Your task to perform on an android device: turn on the 12-hour format for clock Image 0: 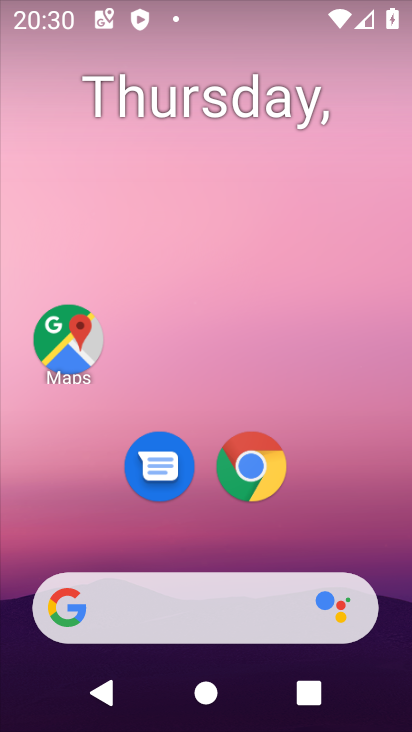
Step 0: drag from (368, 528) to (309, 85)
Your task to perform on an android device: turn on the 12-hour format for clock Image 1: 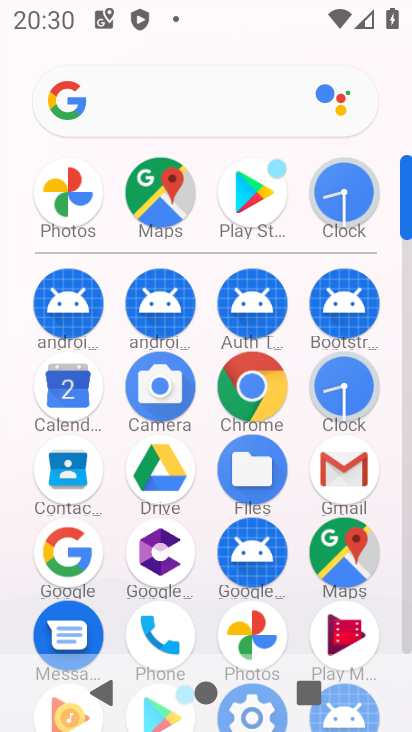
Step 1: click (335, 180)
Your task to perform on an android device: turn on the 12-hour format for clock Image 2: 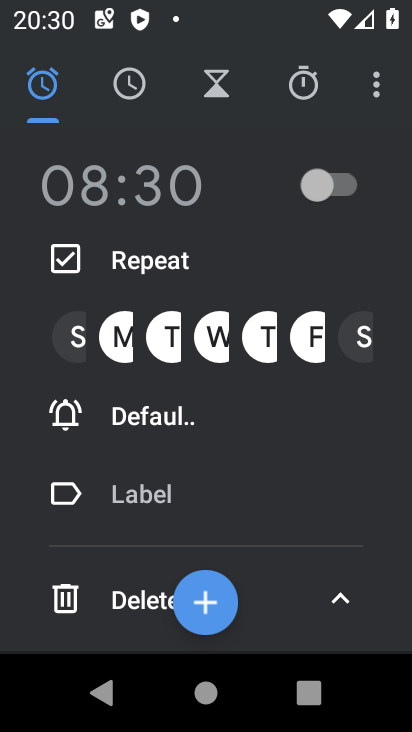
Step 2: click (382, 90)
Your task to perform on an android device: turn on the 12-hour format for clock Image 3: 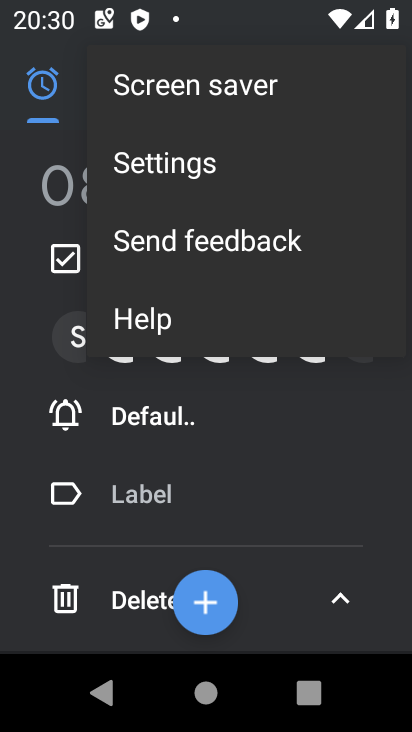
Step 3: click (214, 173)
Your task to perform on an android device: turn on the 12-hour format for clock Image 4: 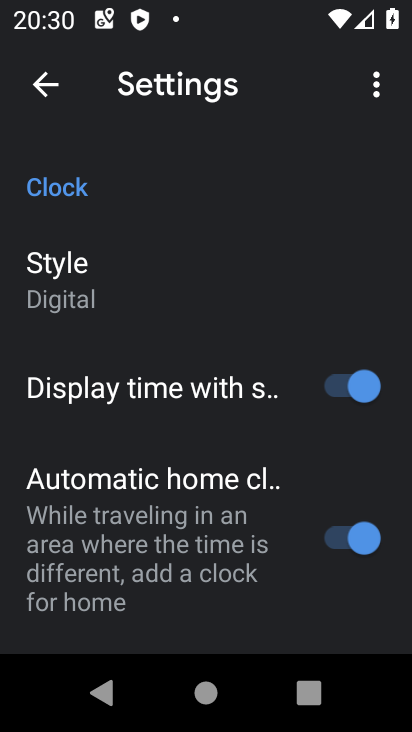
Step 4: drag from (174, 623) to (140, 177)
Your task to perform on an android device: turn on the 12-hour format for clock Image 5: 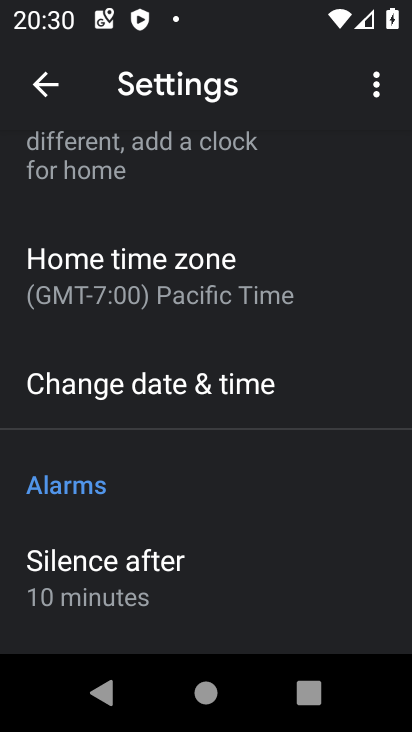
Step 5: click (85, 380)
Your task to perform on an android device: turn on the 12-hour format for clock Image 6: 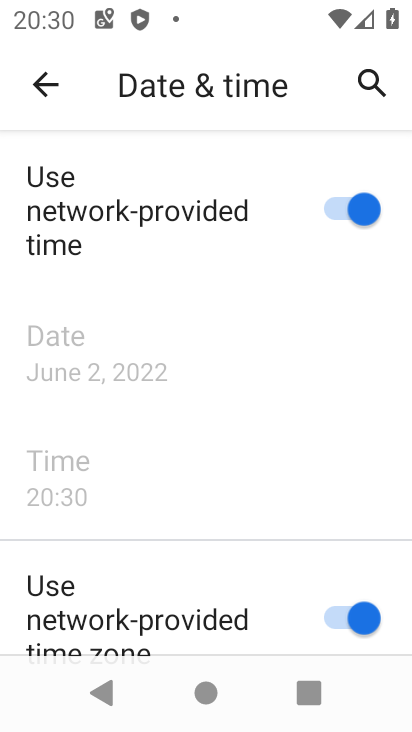
Step 6: drag from (279, 530) to (259, 172)
Your task to perform on an android device: turn on the 12-hour format for clock Image 7: 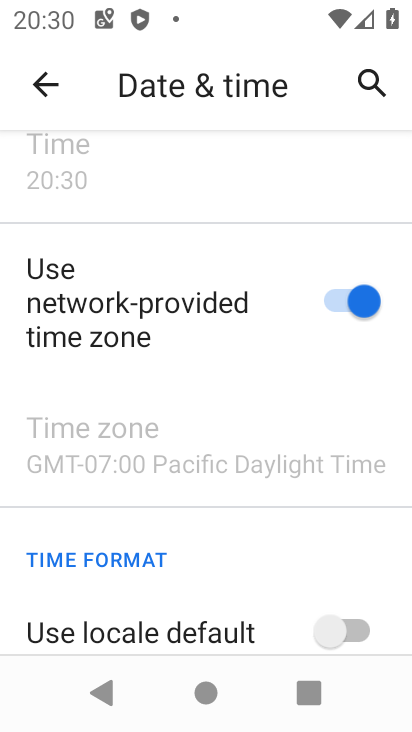
Step 7: drag from (264, 512) to (269, 256)
Your task to perform on an android device: turn on the 12-hour format for clock Image 8: 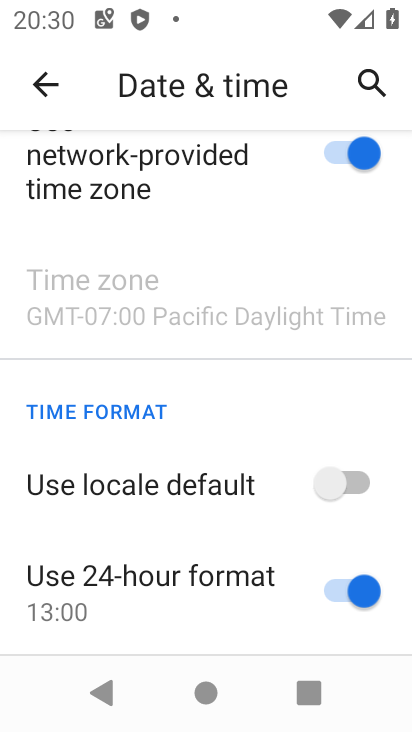
Step 8: click (339, 493)
Your task to perform on an android device: turn on the 12-hour format for clock Image 9: 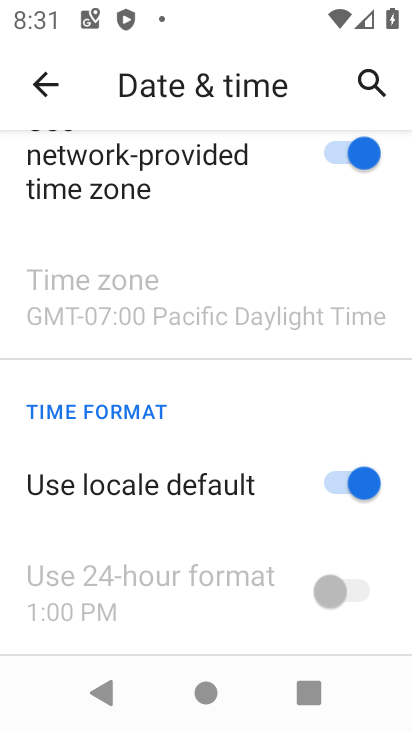
Step 9: task complete